Your task to perform on an android device: turn pop-ups off in chrome Image 0: 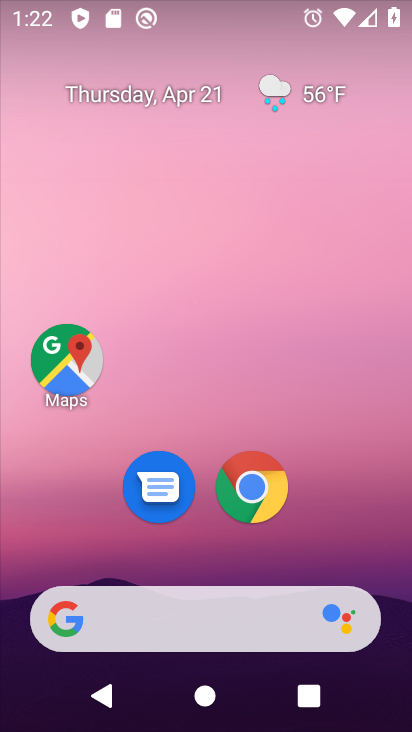
Step 0: click (266, 492)
Your task to perform on an android device: turn pop-ups off in chrome Image 1: 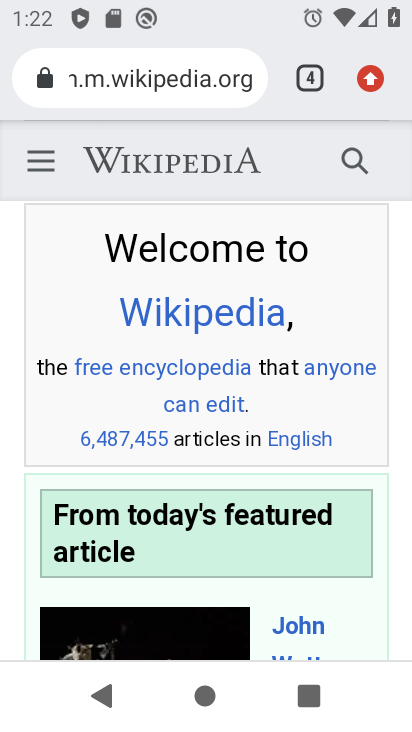
Step 1: drag from (371, 80) to (95, 547)
Your task to perform on an android device: turn pop-ups off in chrome Image 2: 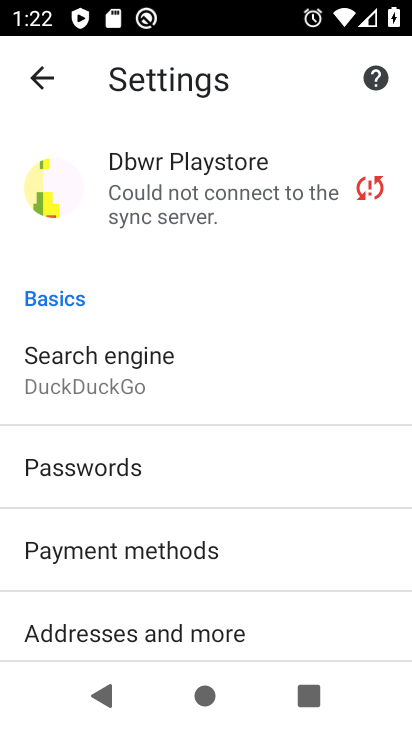
Step 2: drag from (316, 615) to (272, 193)
Your task to perform on an android device: turn pop-ups off in chrome Image 3: 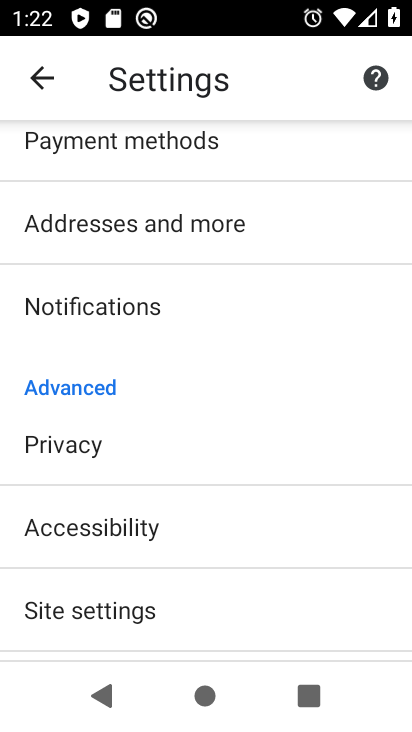
Step 3: click (118, 607)
Your task to perform on an android device: turn pop-ups off in chrome Image 4: 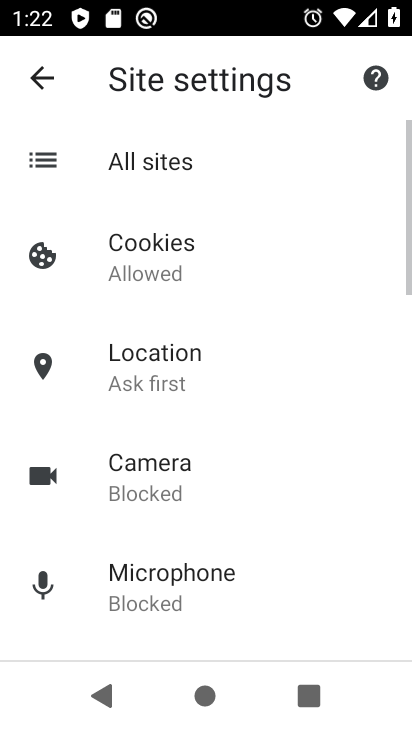
Step 4: drag from (335, 632) to (305, 210)
Your task to perform on an android device: turn pop-ups off in chrome Image 5: 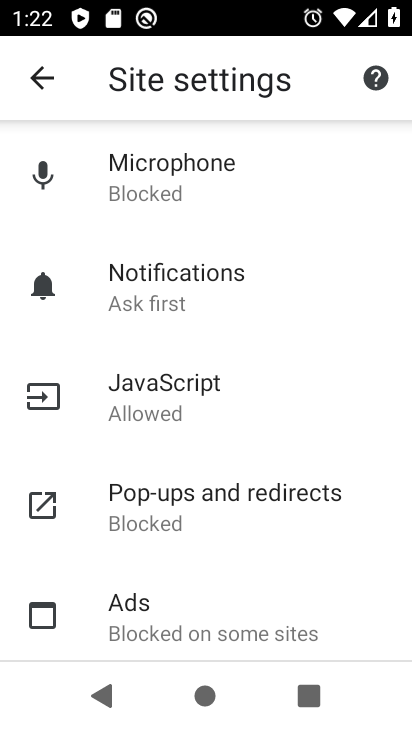
Step 5: click (190, 498)
Your task to perform on an android device: turn pop-ups off in chrome Image 6: 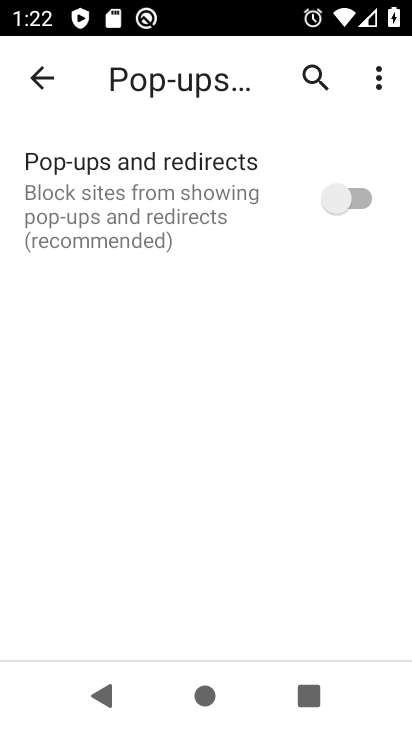
Step 6: task complete